Your task to perform on an android device: Open privacy settings Image 0: 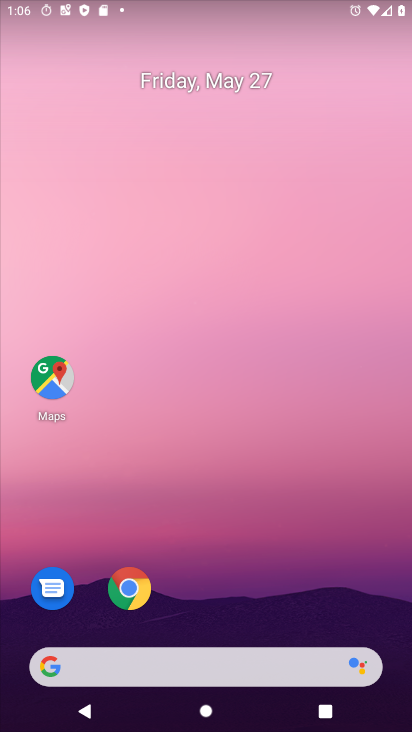
Step 0: drag from (205, 628) to (218, 11)
Your task to perform on an android device: Open privacy settings Image 1: 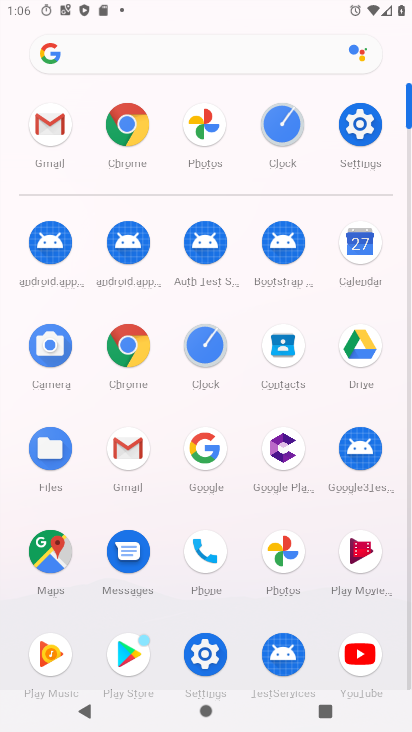
Step 1: click (365, 122)
Your task to perform on an android device: Open privacy settings Image 2: 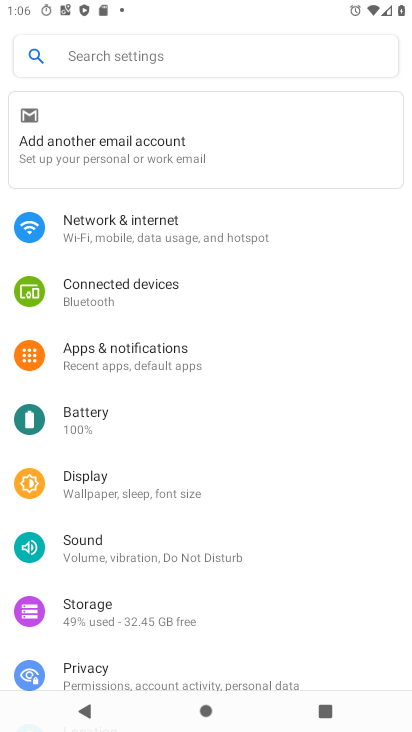
Step 2: drag from (127, 643) to (146, 269)
Your task to perform on an android device: Open privacy settings Image 3: 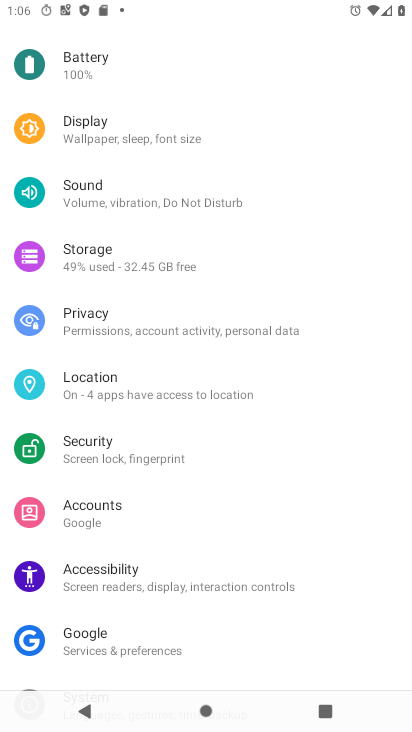
Step 3: click (137, 303)
Your task to perform on an android device: Open privacy settings Image 4: 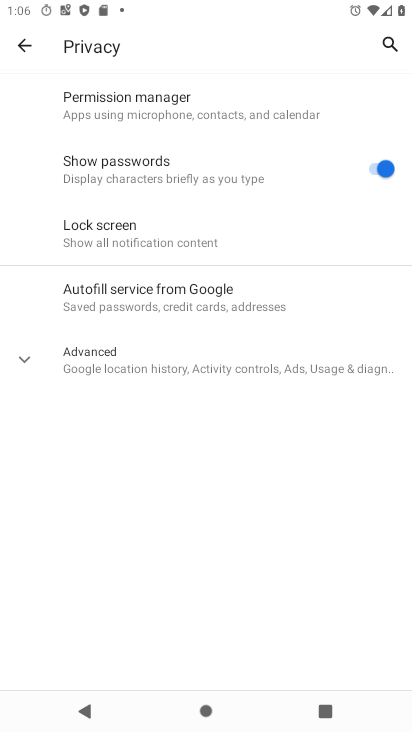
Step 4: click (32, 352)
Your task to perform on an android device: Open privacy settings Image 5: 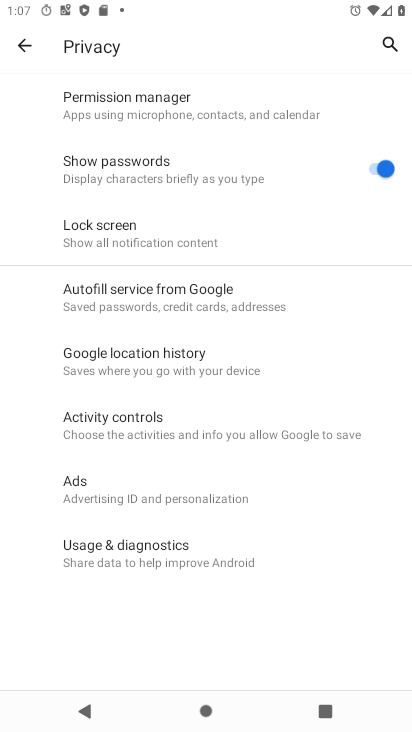
Step 5: task complete